Your task to perform on an android device: Go to Maps Image 0: 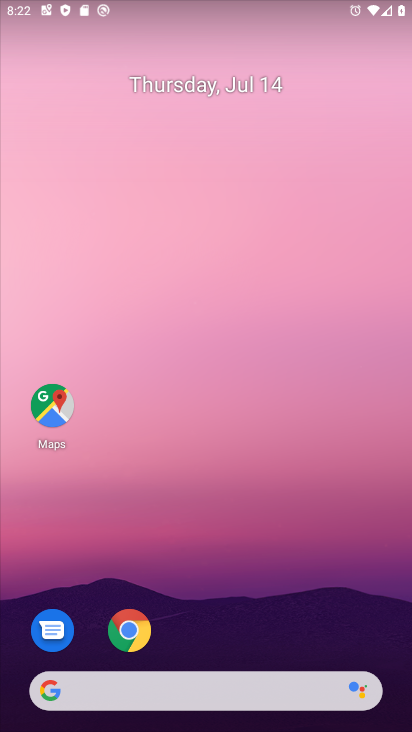
Step 0: drag from (235, 723) to (238, 176)
Your task to perform on an android device: Go to Maps Image 1: 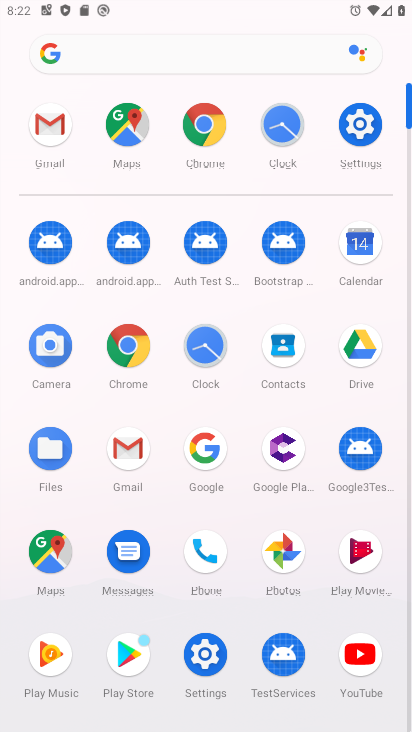
Step 1: click (59, 552)
Your task to perform on an android device: Go to Maps Image 2: 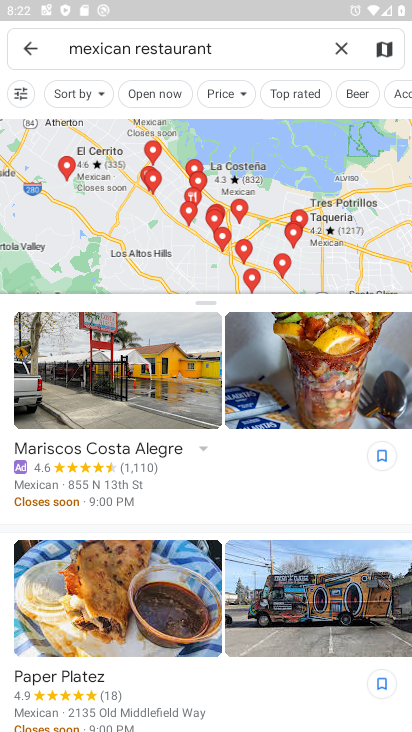
Step 2: task complete